Your task to perform on an android device: Search for "asus zenbook" on walmart, select the first entry, and add it to the cart. Image 0: 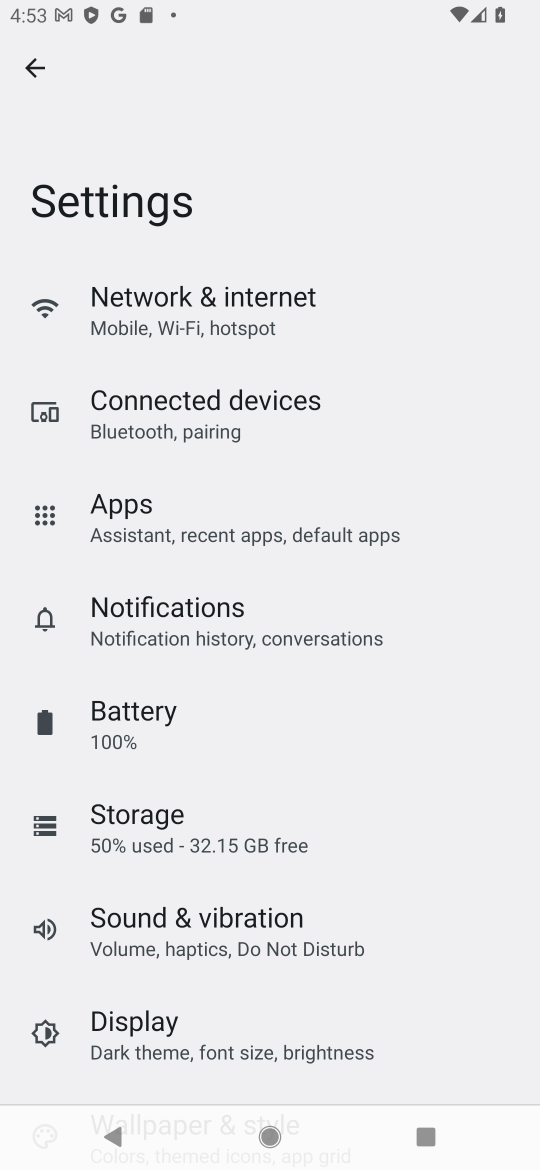
Step 0: press home button
Your task to perform on an android device: Search for "asus zenbook" on walmart, select the first entry, and add it to the cart. Image 1: 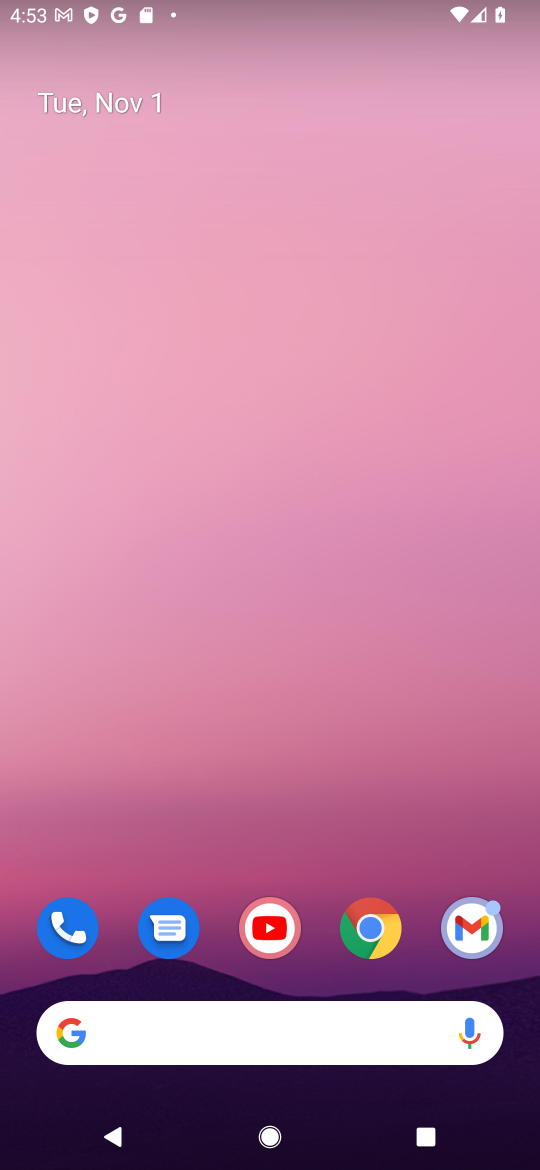
Step 1: click (379, 939)
Your task to perform on an android device: Search for "asus zenbook" on walmart, select the first entry, and add it to the cart. Image 2: 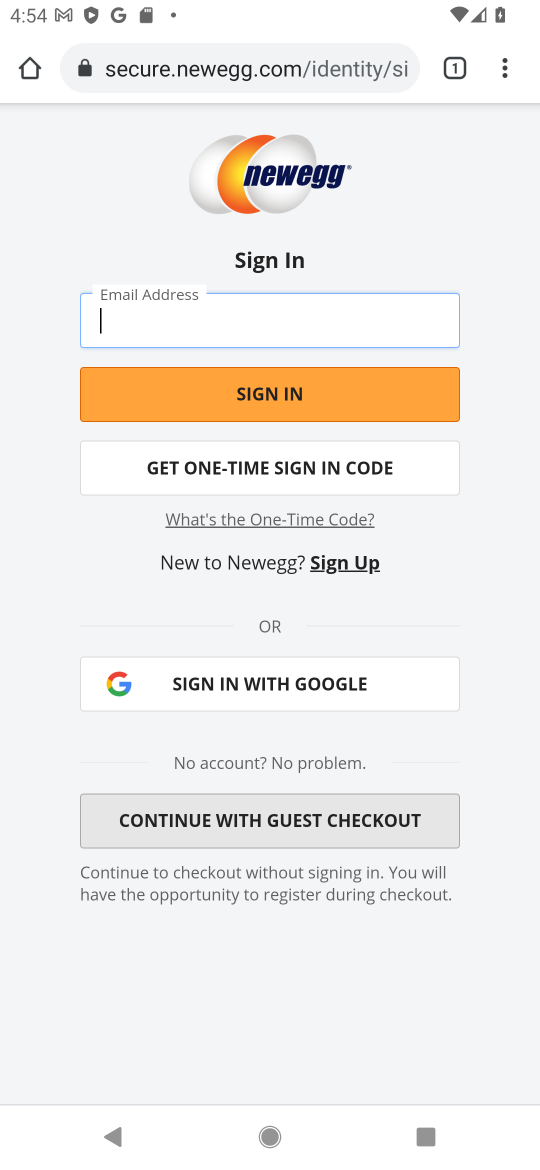
Step 2: click (281, 70)
Your task to perform on an android device: Search for "asus zenbook" on walmart, select the first entry, and add it to the cart. Image 3: 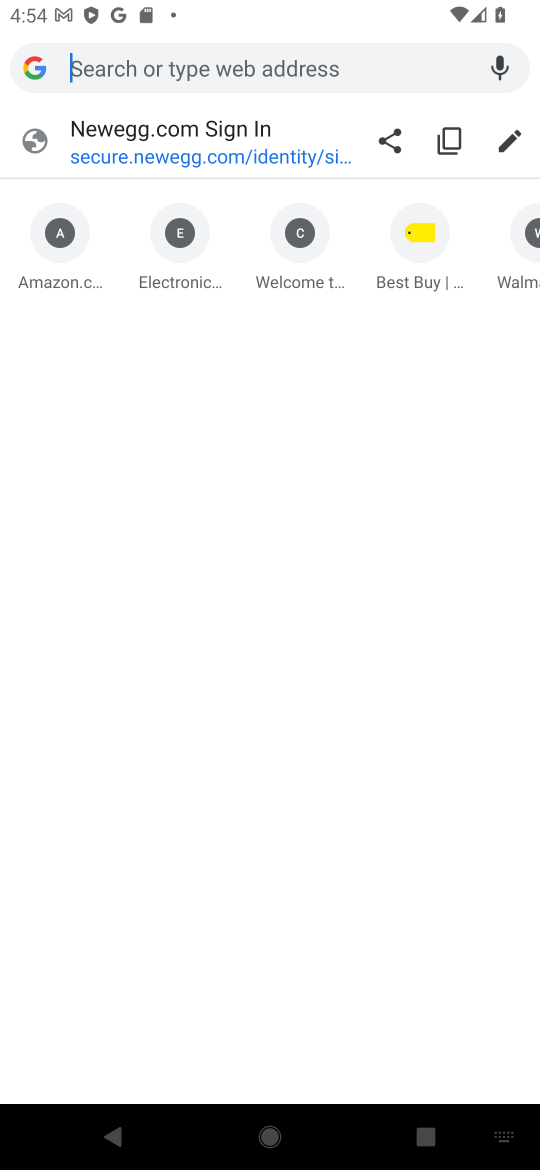
Step 3: type "walmart"
Your task to perform on an android device: Search for "asus zenbook" on walmart, select the first entry, and add it to the cart. Image 4: 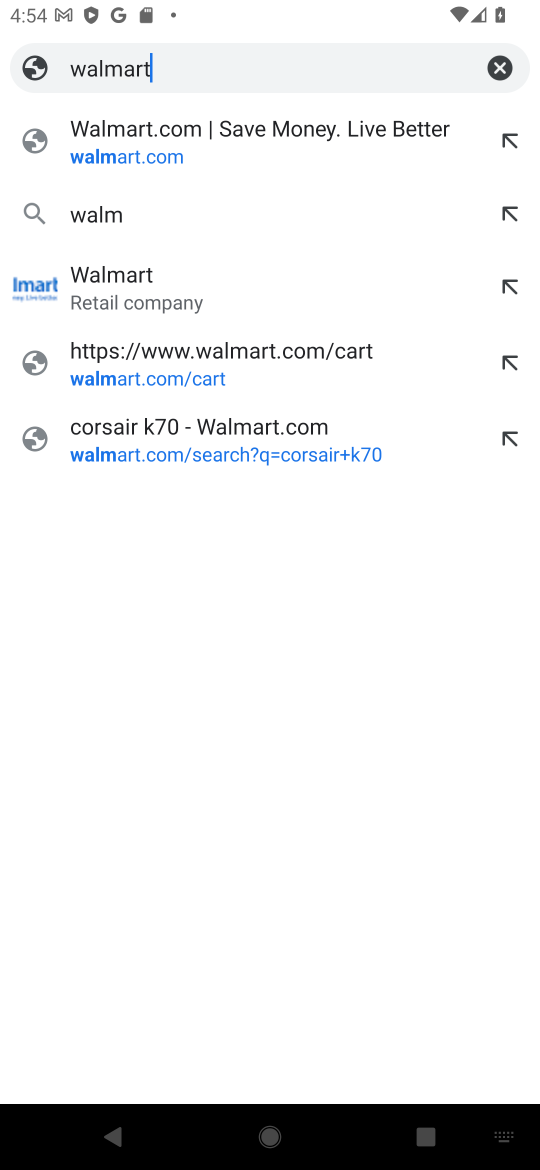
Step 4: type ""
Your task to perform on an android device: Search for "asus zenbook" on walmart, select the first entry, and add it to the cart. Image 5: 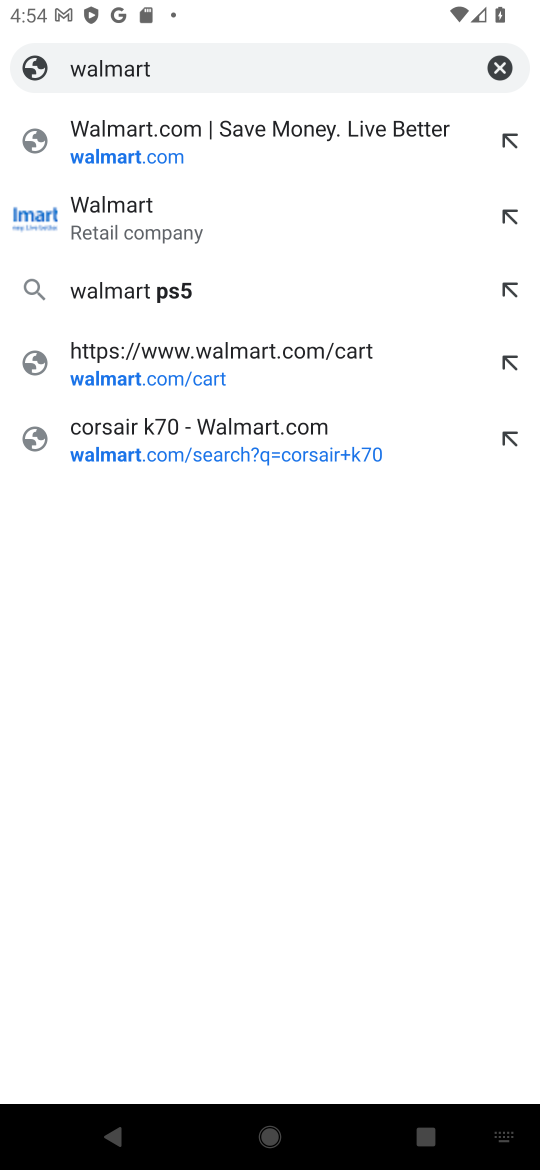
Step 5: press enter
Your task to perform on an android device: Search for "asus zenbook" on walmart, select the first entry, and add it to the cart. Image 6: 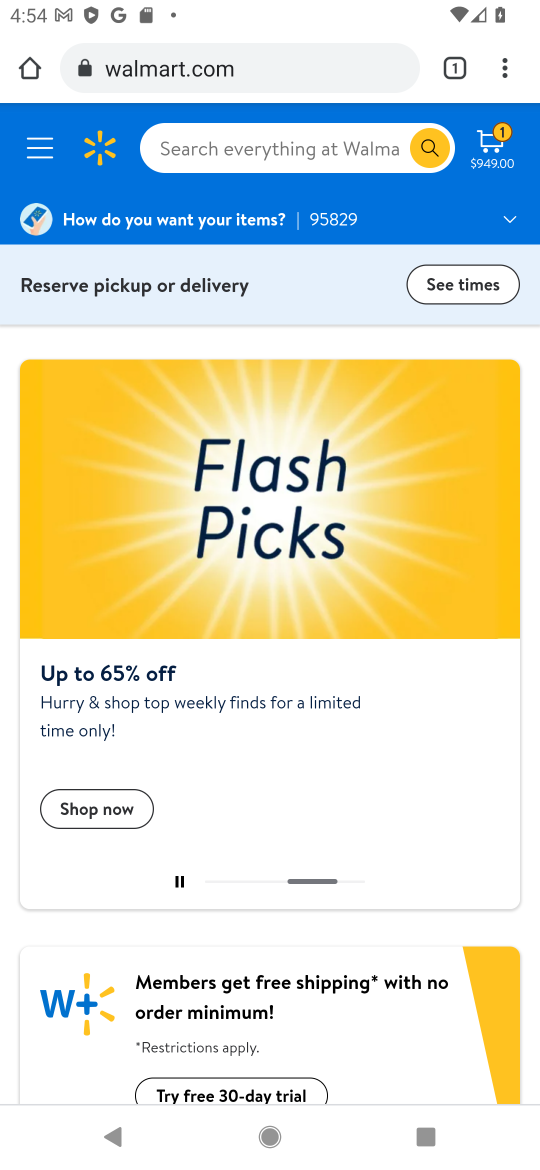
Step 6: click (284, 135)
Your task to perform on an android device: Search for "asus zenbook" on walmart, select the first entry, and add it to the cart. Image 7: 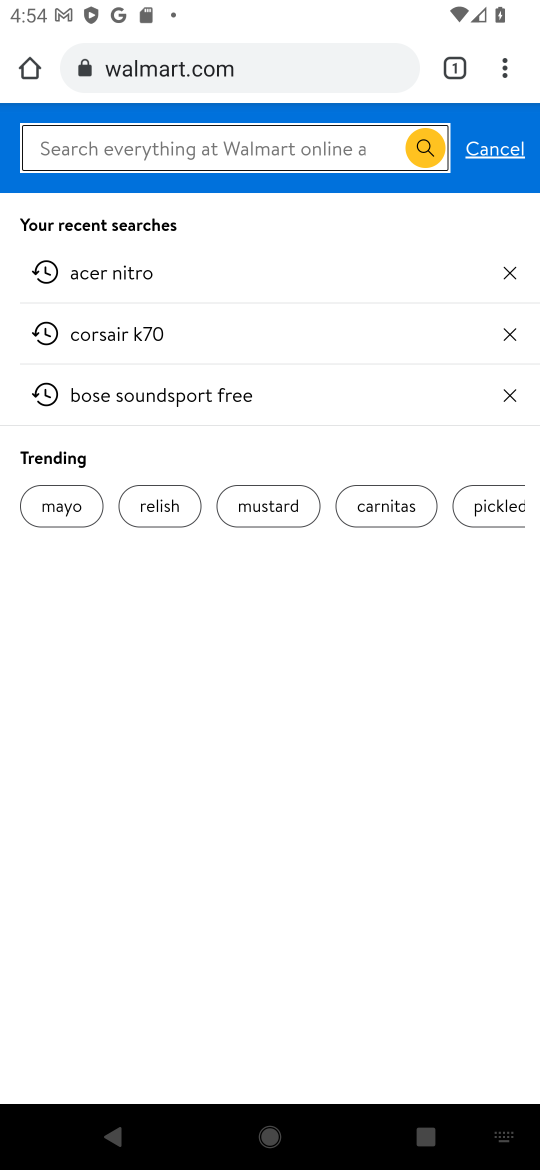
Step 7: type "asus zenbook"
Your task to perform on an android device: Search for "asus zenbook" on walmart, select the first entry, and add it to the cart. Image 8: 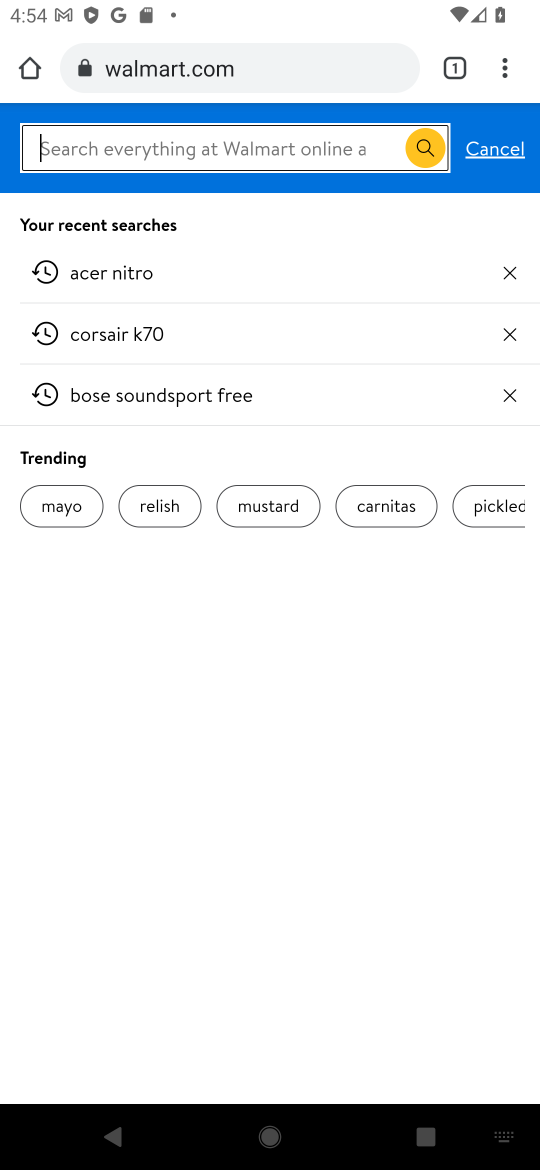
Step 8: type ""
Your task to perform on an android device: Search for "asus zenbook" on walmart, select the first entry, and add it to the cart. Image 9: 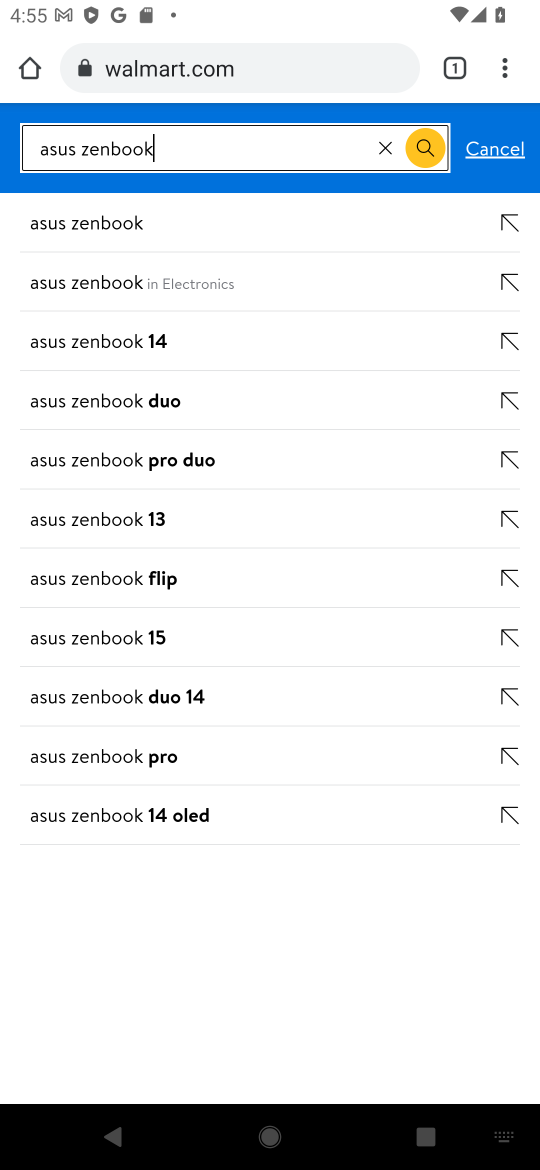
Step 9: press enter
Your task to perform on an android device: Search for "asus zenbook" on walmart, select the first entry, and add it to the cart. Image 10: 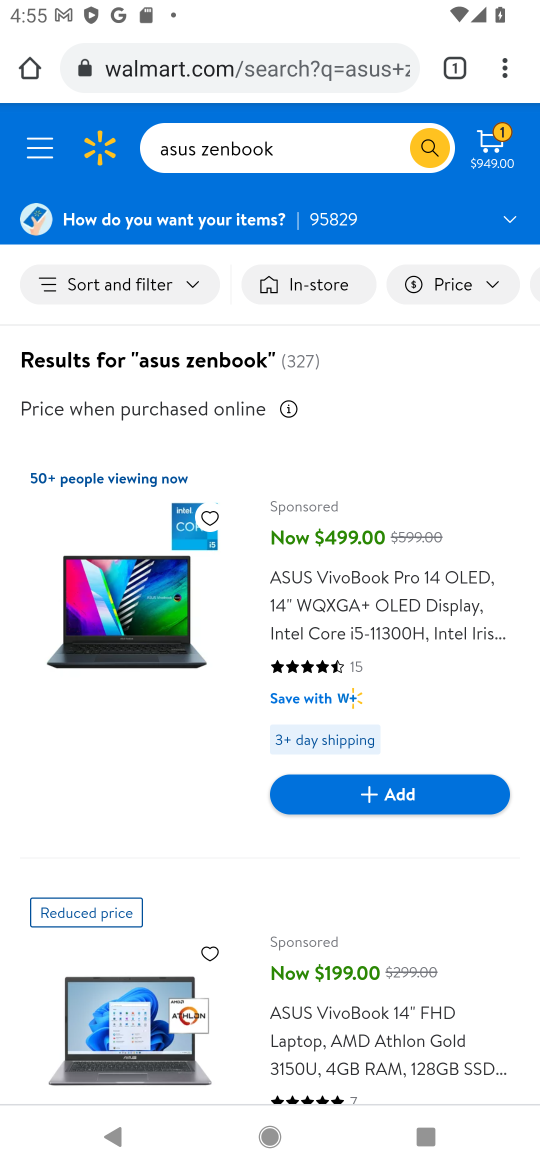
Step 10: drag from (347, 960) to (317, 118)
Your task to perform on an android device: Search for "asus zenbook" on walmart, select the first entry, and add it to the cart. Image 11: 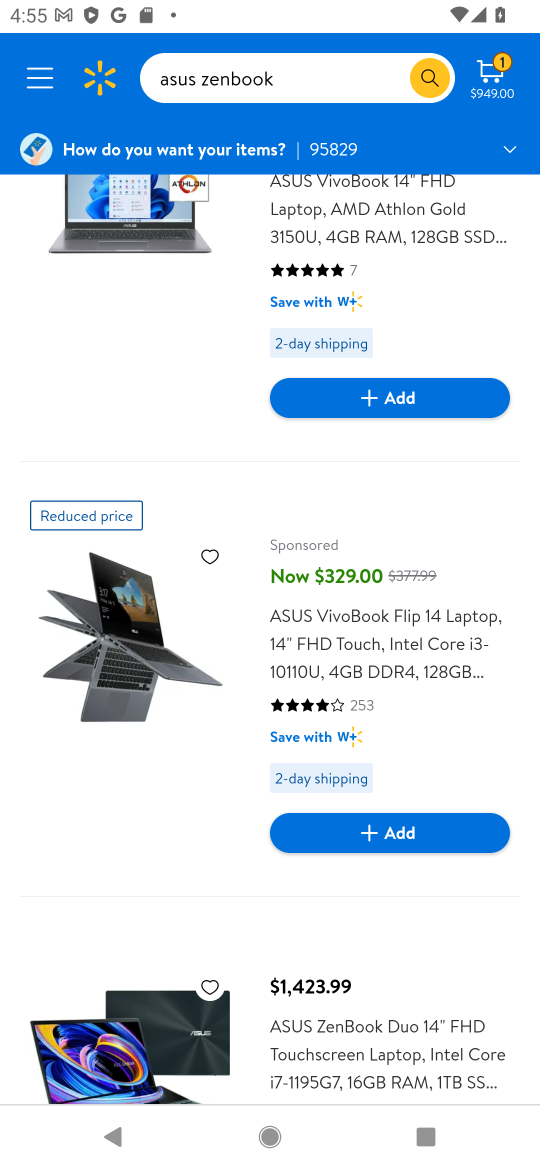
Step 11: drag from (239, 966) to (250, 520)
Your task to perform on an android device: Search for "asus zenbook" on walmart, select the first entry, and add it to the cart. Image 12: 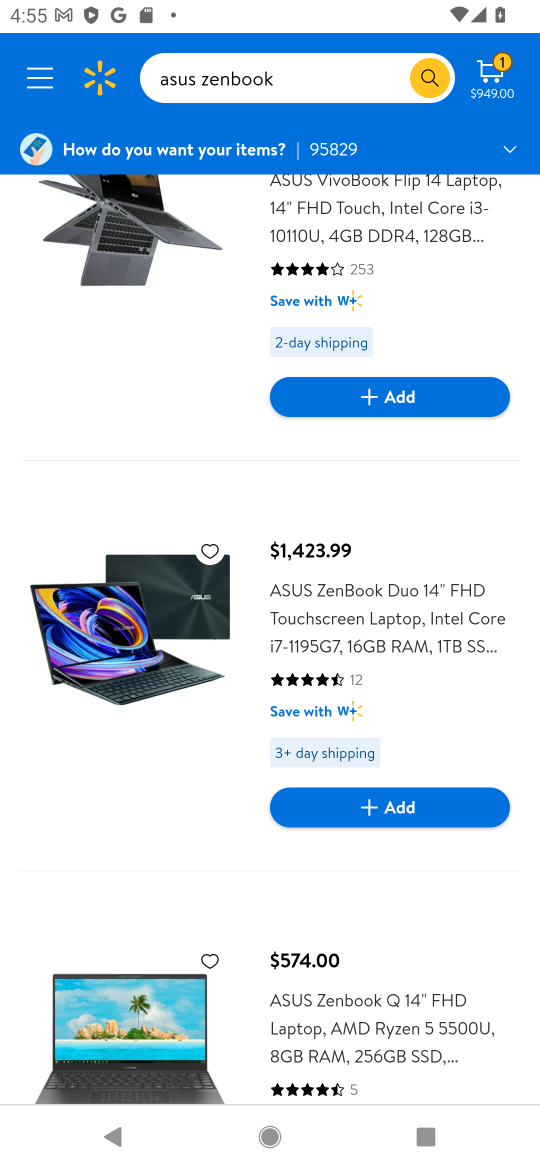
Step 12: click (420, 810)
Your task to perform on an android device: Search for "asus zenbook" on walmart, select the first entry, and add it to the cart. Image 13: 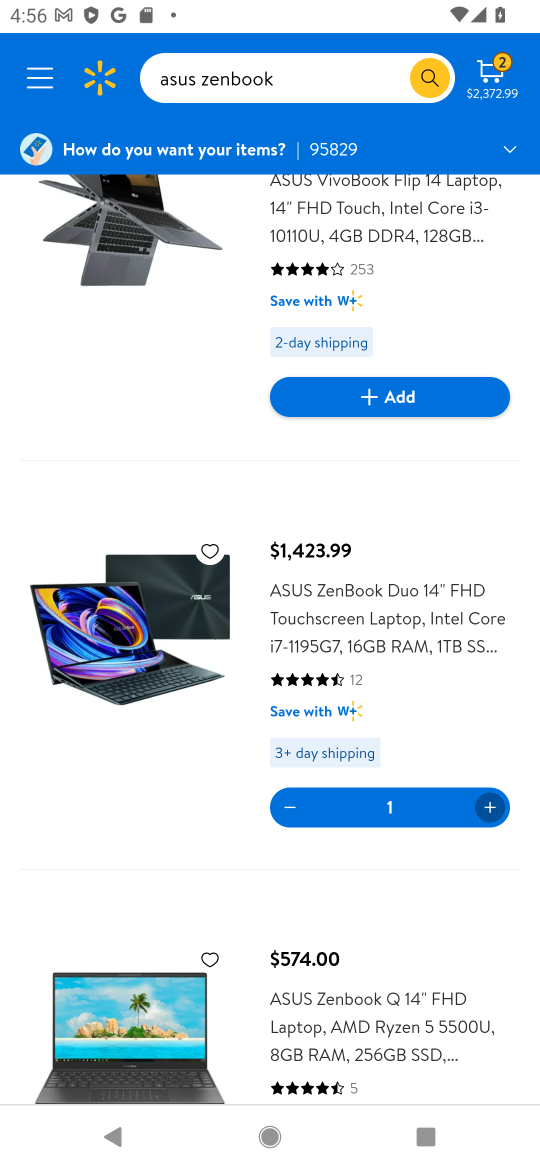
Step 13: click (490, 77)
Your task to perform on an android device: Search for "asus zenbook" on walmart, select the first entry, and add it to the cart. Image 14: 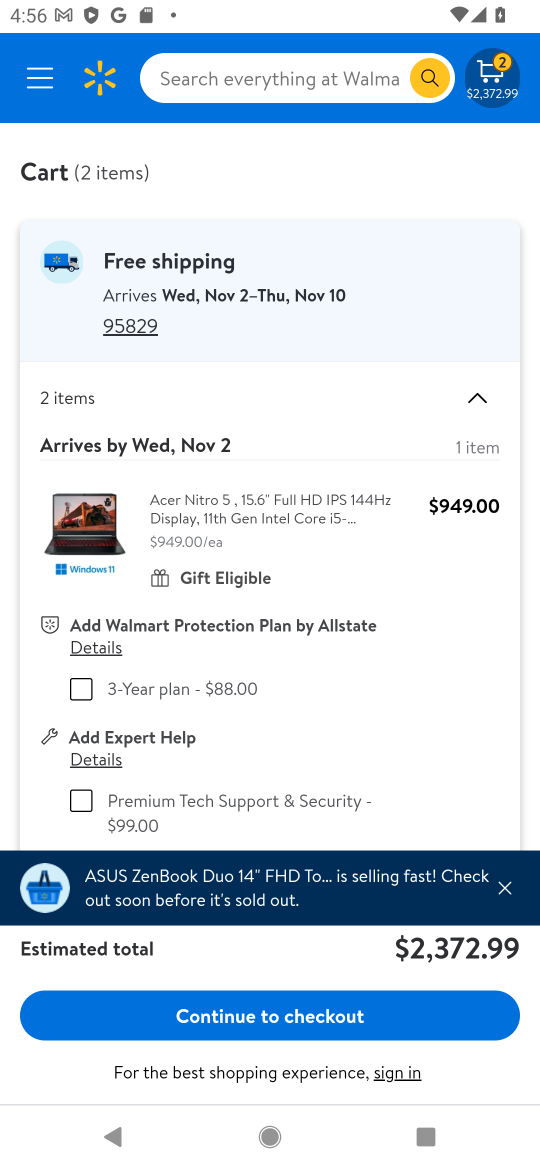
Step 14: task complete